Your task to perform on an android device: Check the weather Image 0: 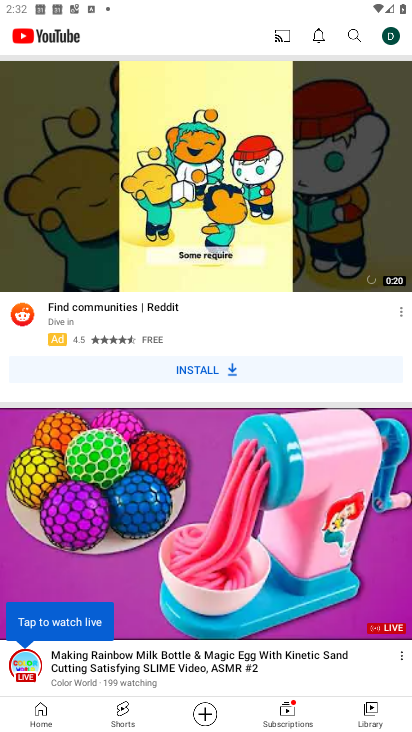
Step 0: press home button
Your task to perform on an android device: Check the weather Image 1: 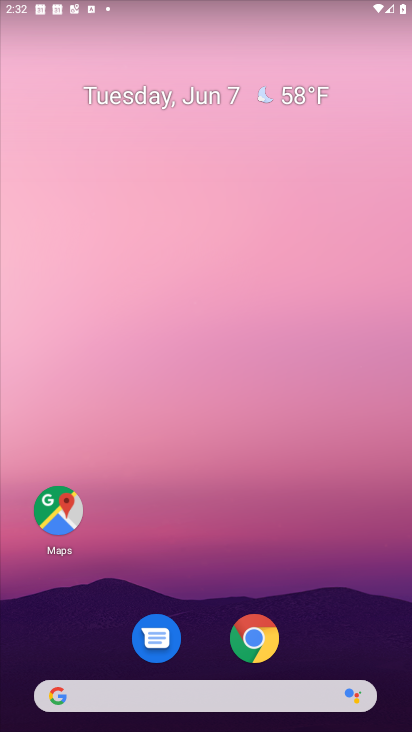
Step 1: click (256, 635)
Your task to perform on an android device: Check the weather Image 2: 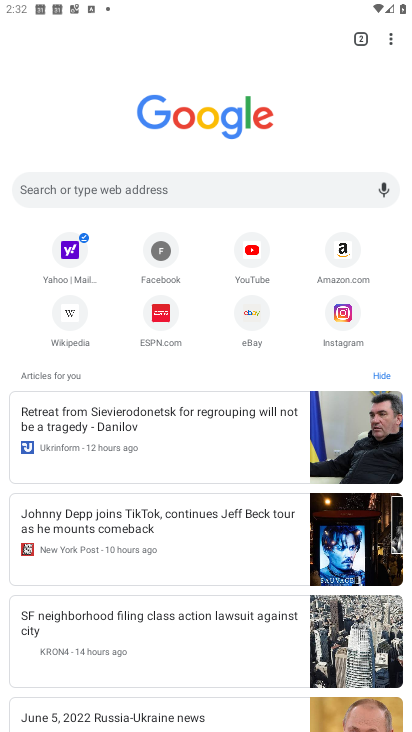
Step 2: click (85, 194)
Your task to perform on an android device: Check the weather Image 3: 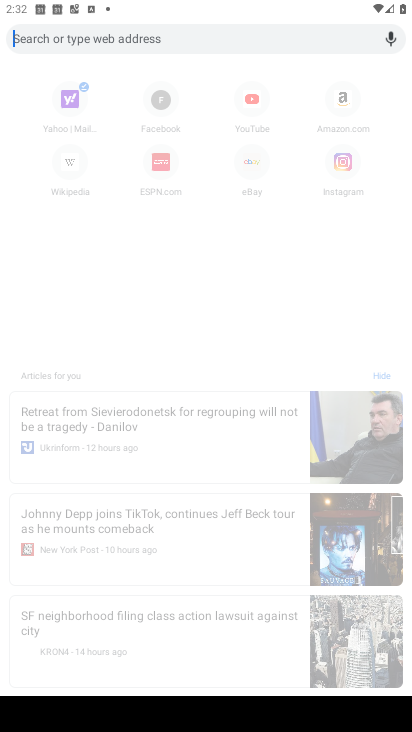
Step 3: type "weather"
Your task to perform on an android device: Check the weather Image 4: 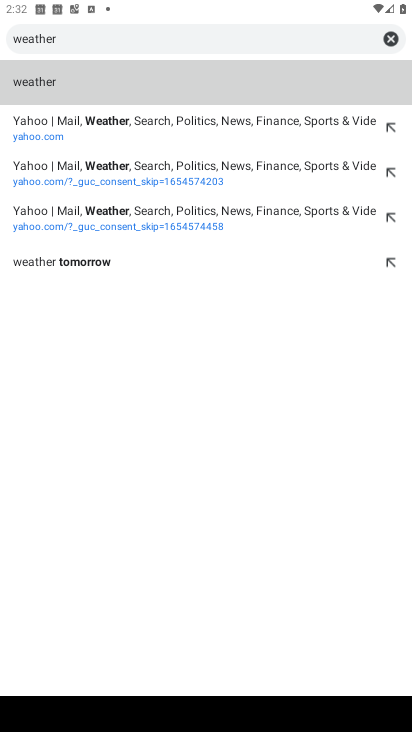
Step 4: click (141, 86)
Your task to perform on an android device: Check the weather Image 5: 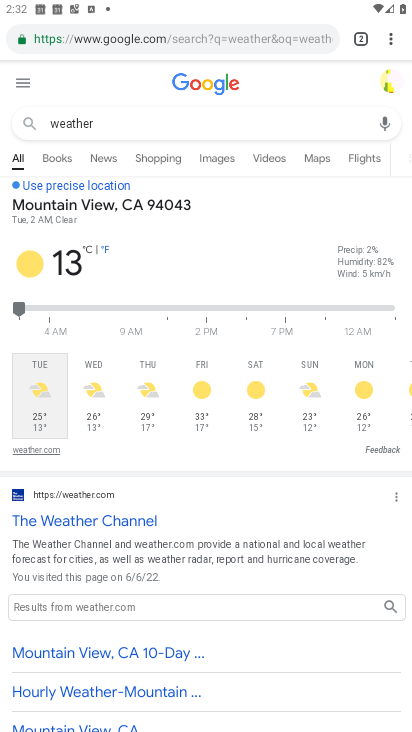
Step 5: task complete